Your task to perform on an android device: turn off location Image 0: 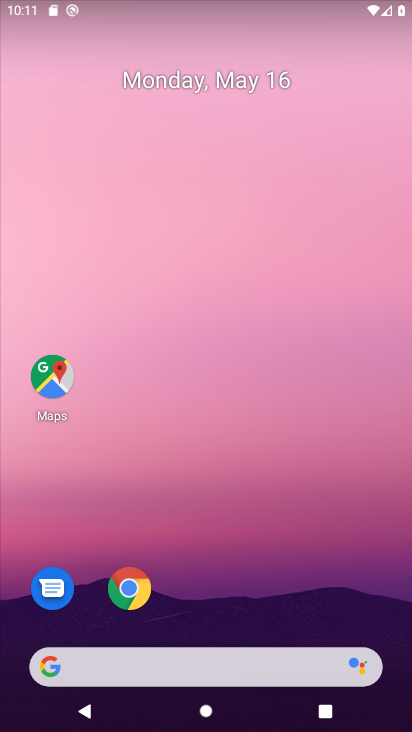
Step 0: click (217, 50)
Your task to perform on an android device: turn off location Image 1: 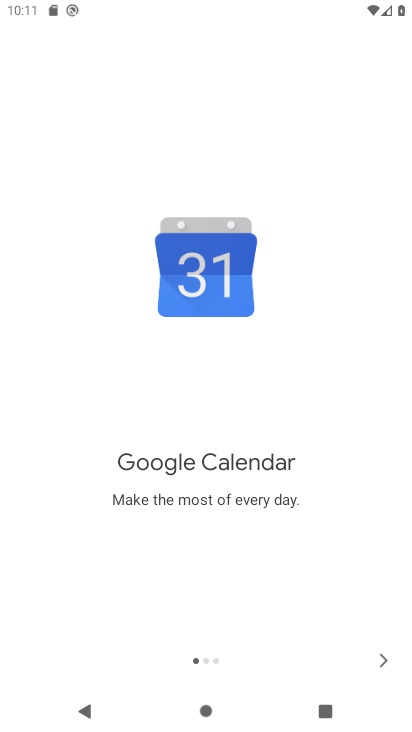
Step 1: press home button
Your task to perform on an android device: turn off location Image 2: 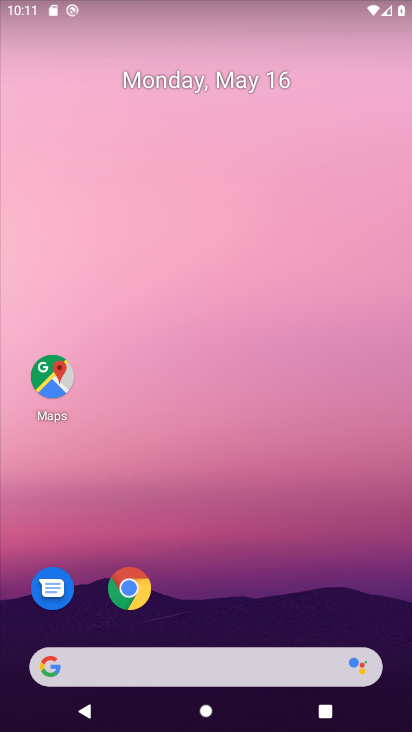
Step 2: drag from (204, 627) to (248, 55)
Your task to perform on an android device: turn off location Image 3: 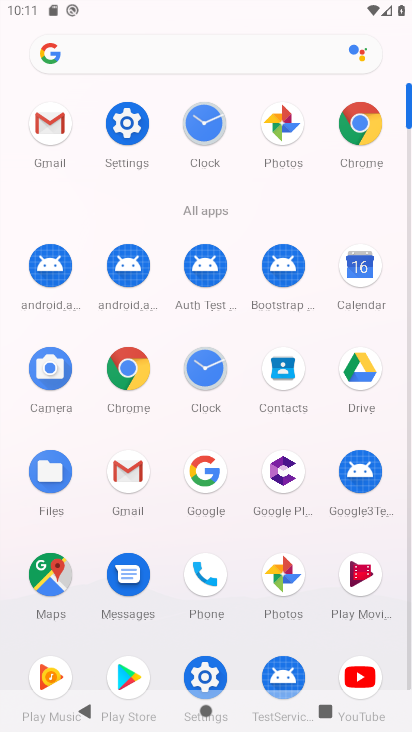
Step 3: click (52, 568)
Your task to perform on an android device: turn off location Image 4: 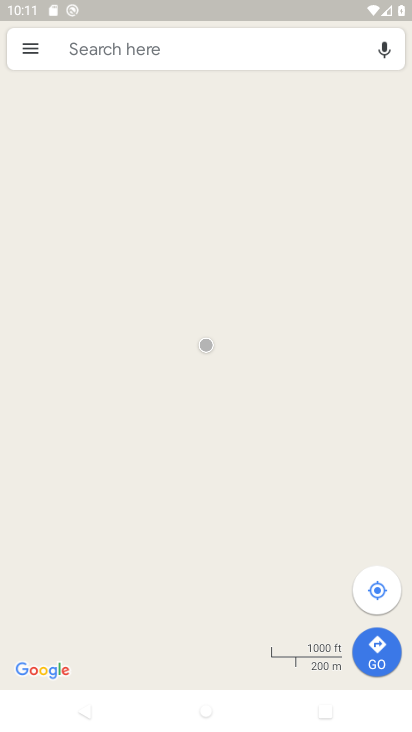
Step 4: click (25, 47)
Your task to perform on an android device: turn off location Image 5: 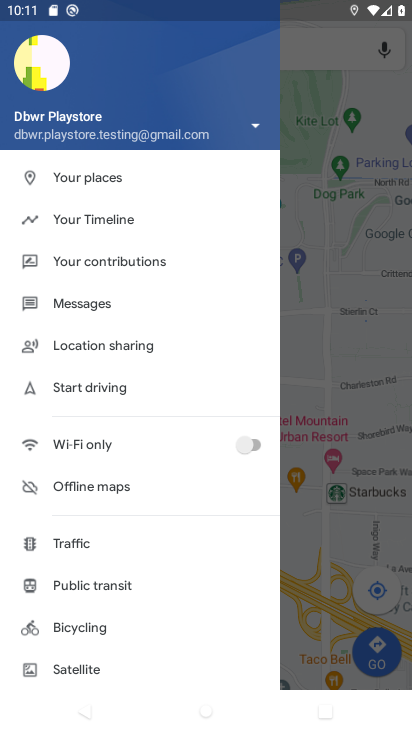
Step 5: drag from (105, 655) to (131, 169)
Your task to perform on an android device: turn off location Image 6: 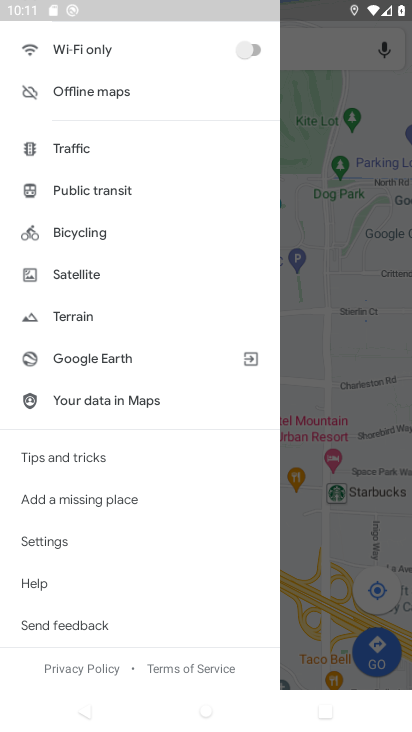
Step 6: click (76, 539)
Your task to perform on an android device: turn off location Image 7: 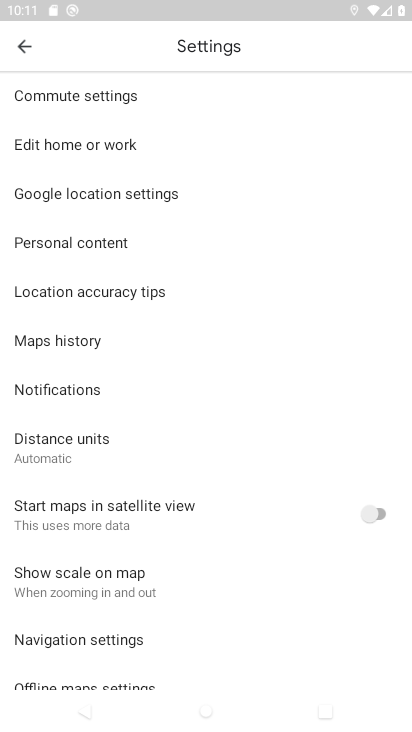
Step 7: click (156, 191)
Your task to perform on an android device: turn off location Image 8: 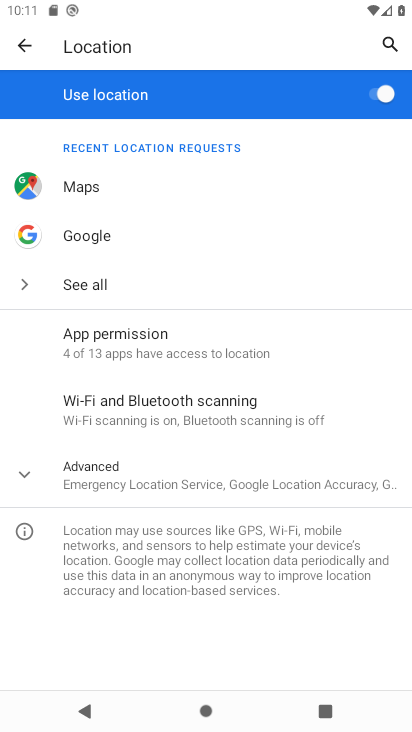
Step 8: click (376, 90)
Your task to perform on an android device: turn off location Image 9: 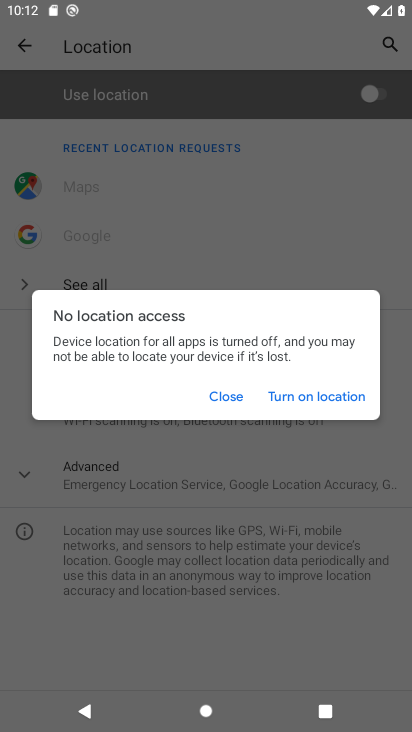
Step 9: task complete